Your task to perform on an android device: Open the calendar app, open the side menu, and click the "Day" option Image 0: 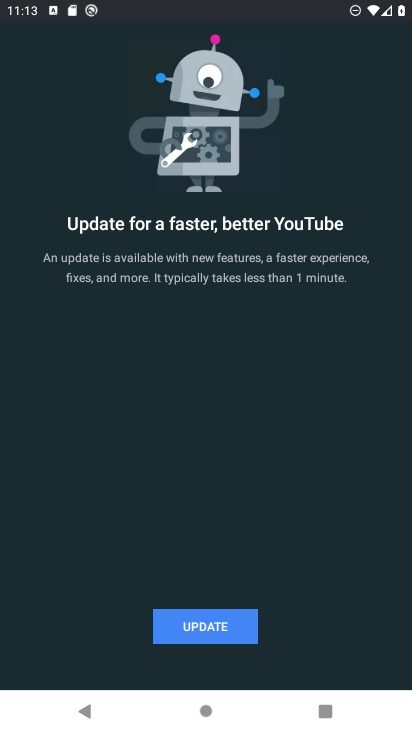
Step 0: press home button
Your task to perform on an android device: Open the calendar app, open the side menu, and click the "Day" option Image 1: 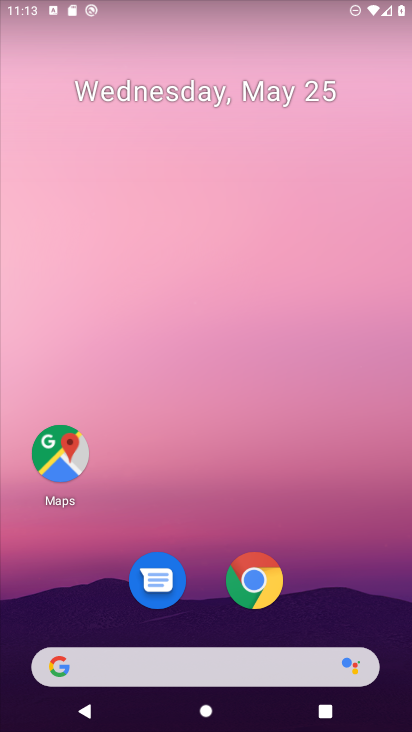
Step 1: drag from (14, 117) to (318, 43)
Your task to perform on an android device: Open the calendar app, open the side menu, and click the "Day" option Image 2: 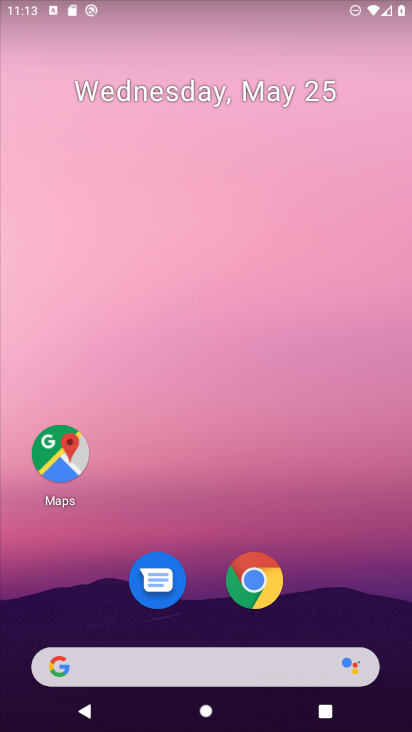
Step 2: drag from (53, 564) to (408, 22)
Your task to perform on an android device: Open the calendar app, open the side menu, and click the "Day" option Image 3: 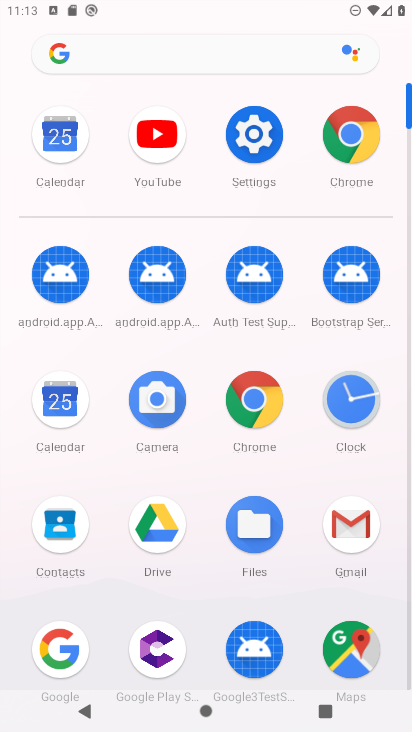
Step 3: click (67, 401)
Your task to perform on an android device: Open the calendar app, open the side menu, and click the "Day" option Image 4: 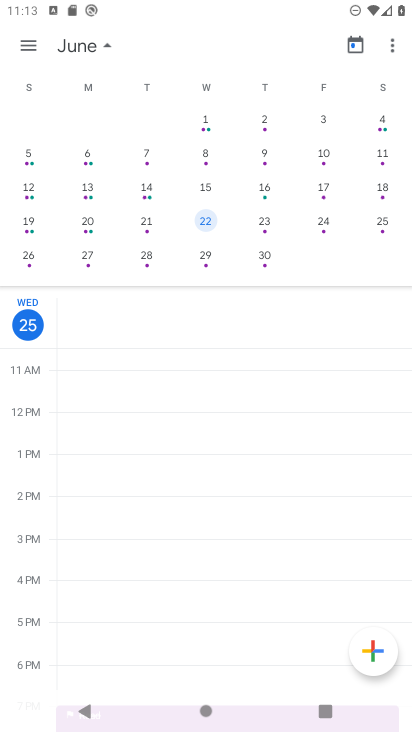
Step 4: click (36, 56)
Your task to perform on an android device: Open the calendar app, open the side menu, and click the "Day" option Image 5: 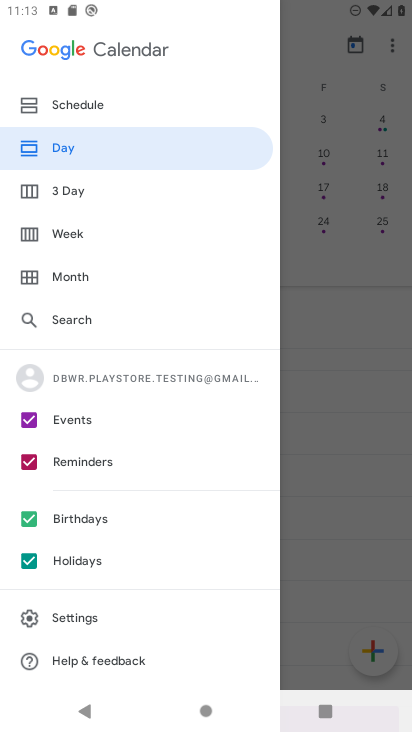
Step 5: click (47, 162)
Your task to perform on an android device: Open the calendar app, open the side menu, and click the "Day" option Image 6: 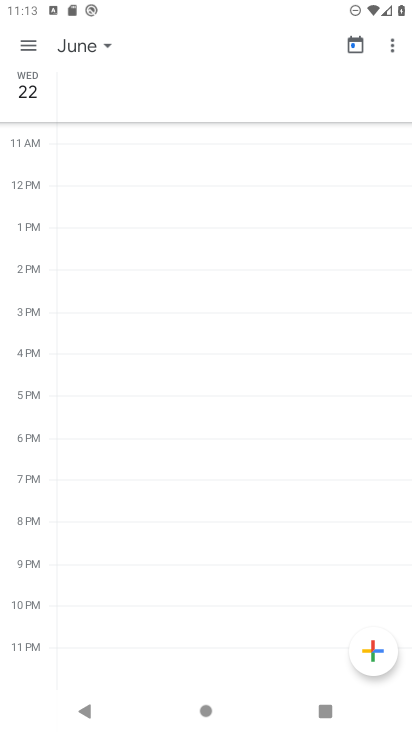
Step 6: task complete